Your task to perform on an android device: change keyboard looks Image 0: 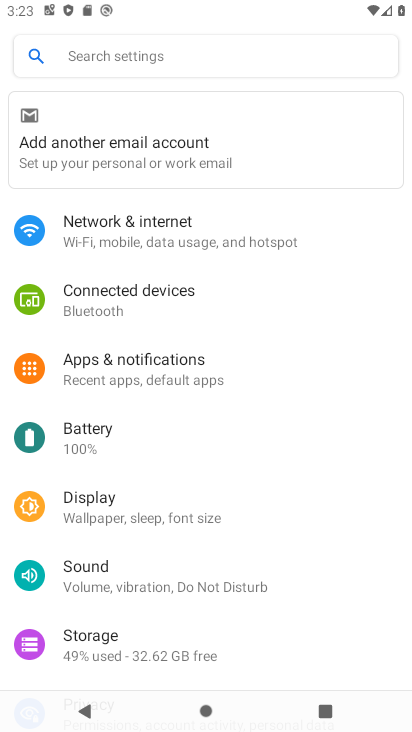
Step 0: drag from (173, 572) to (217, 256)
Your task to perform on an android device: change keyboard looks Image 1: 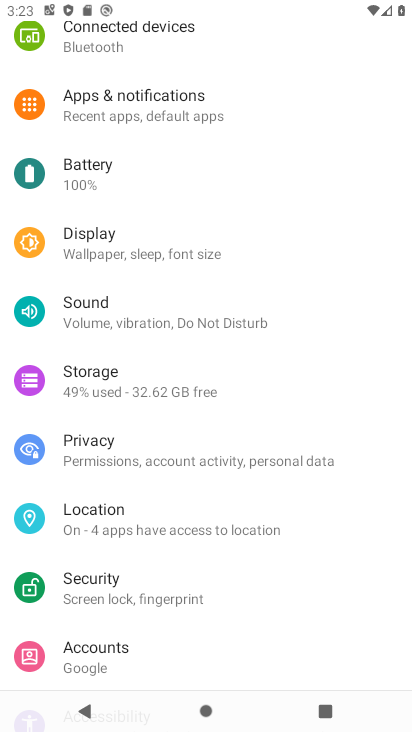
Step 1: drag from (174, 634) to (224, 328)
Your task to perform on an android device: change keyboard looks Image 2: 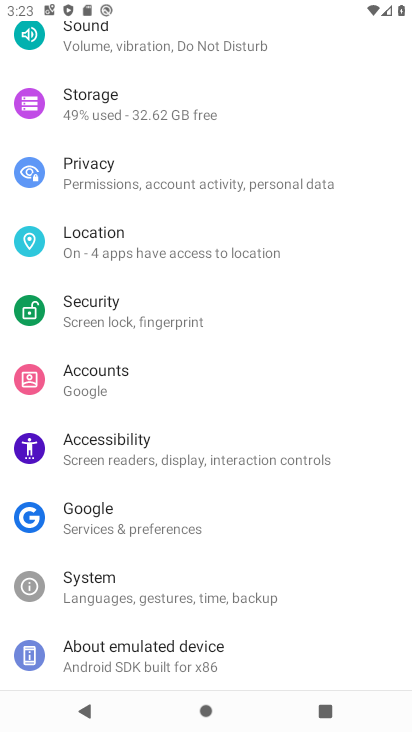
Step 2: click (171, 661)
Your task to perform on an android device: change keyboard looks Image 3: 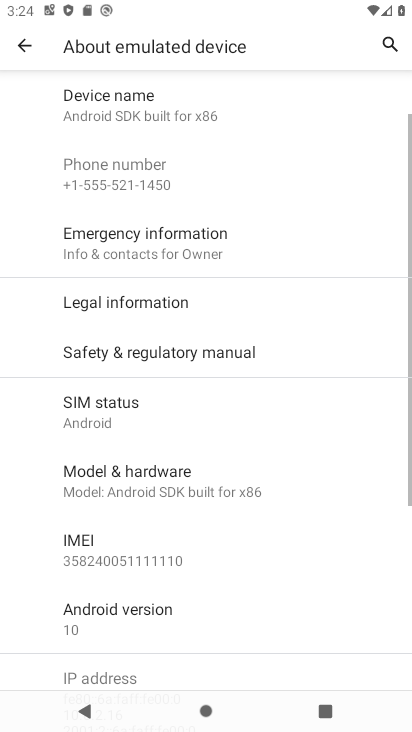
Step 3: click (28, 40)
Your task to perform on an android device: change keyboard looks Image 4: 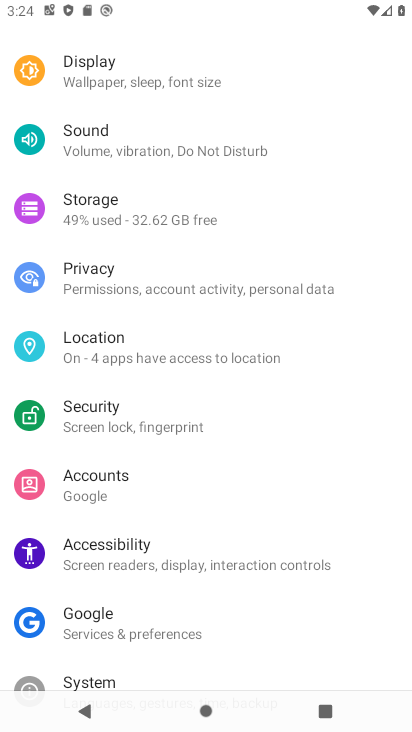
Step 4: drag from (204, 667) to (229, 466)
Your task to perform on an android device: change keyboard looks Image 5: 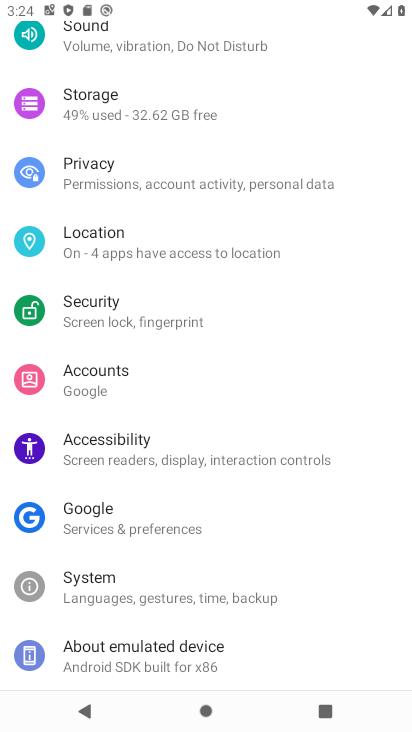
Step 5: click (168, 600)
Your task to perform on an android device: change keyboard looks Image 6: 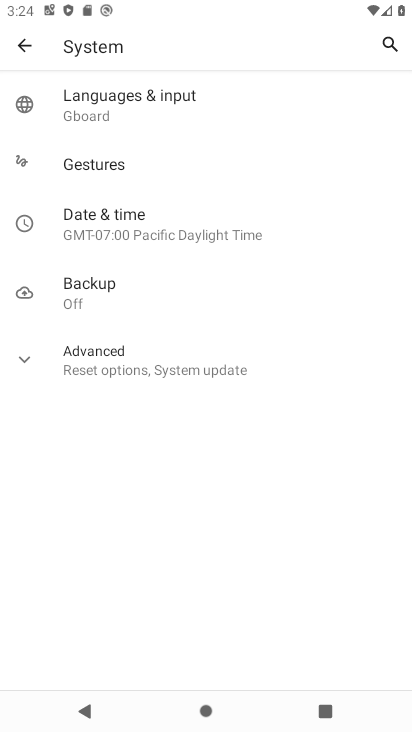
Step 6: click (120, 116)
Your task to perform on an android device: change keyboard looks Image 7: 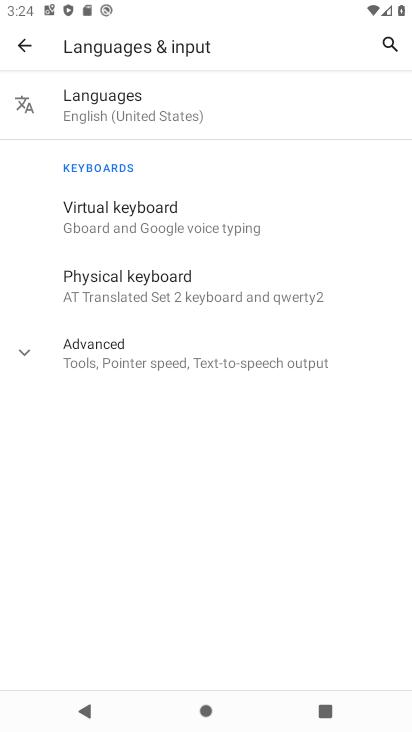
Step 7: click (111, 218)
Your task to perform on an android device: change keyboard looks Image 8: 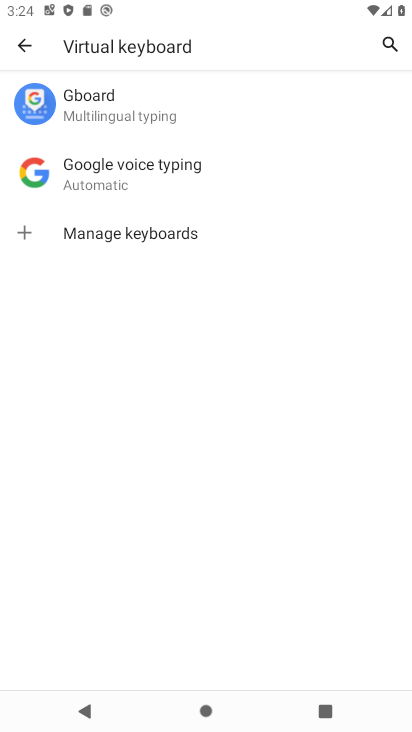
Step 8: click (157, 121)
Your task to perform on an android device: change keyboard looks Image 9: 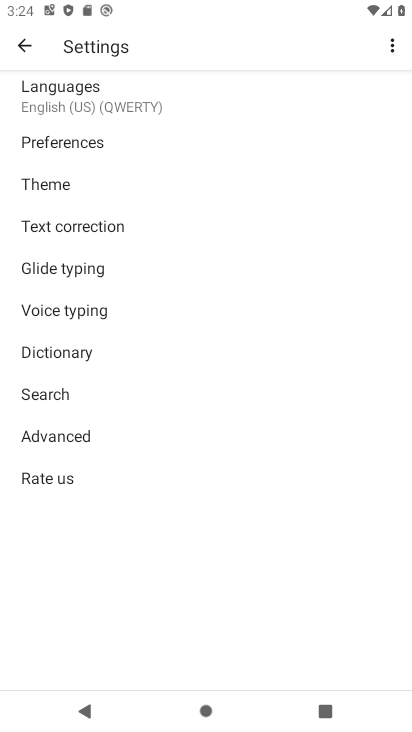
Step 9: click (108, 173)
Your task to perform on an android device: change keyboard looks Image 10: 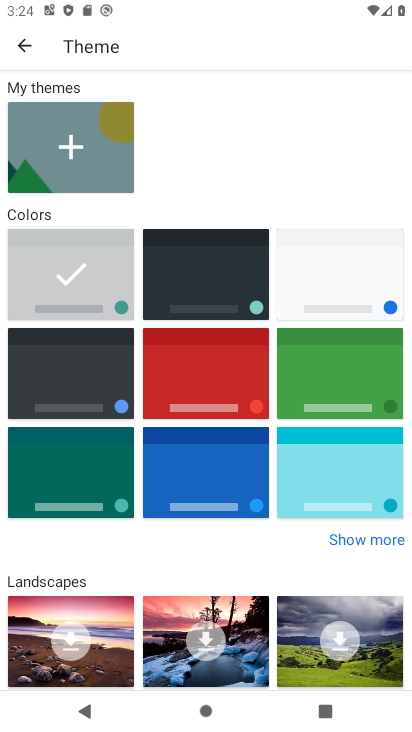
Step 10: click (198, 280)
Your task to perform on an android device: change keyboard looks Image 11: 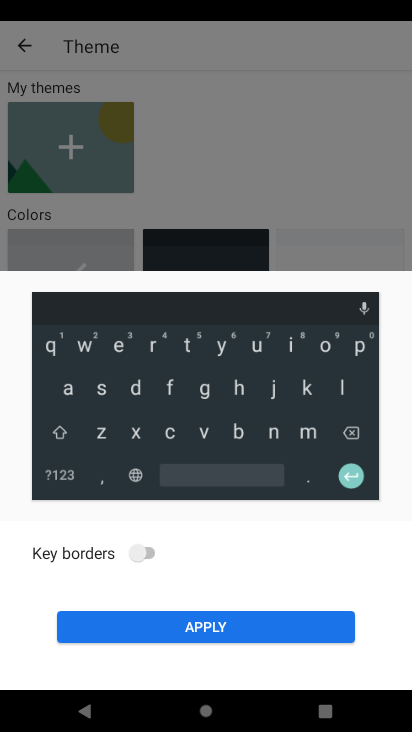
Step 11: task complete